Your task to perform on an android device: turn on the 12-hour format for clock Image 0: 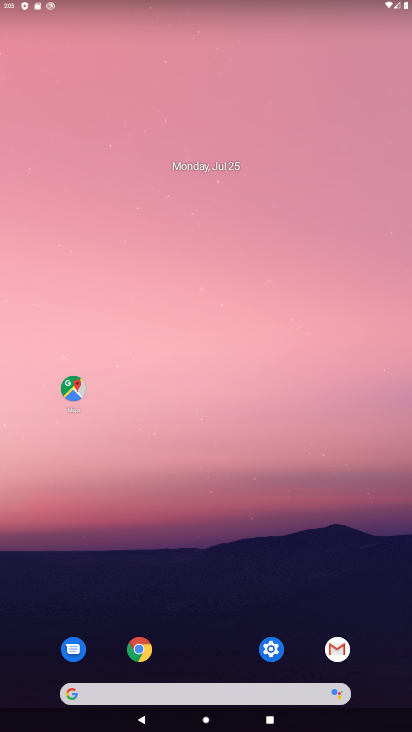
Step 0: drag from (264, 689) to (408, 135)
Your task to perform on an android device: turn on the 12-hour format for clock Image 1: 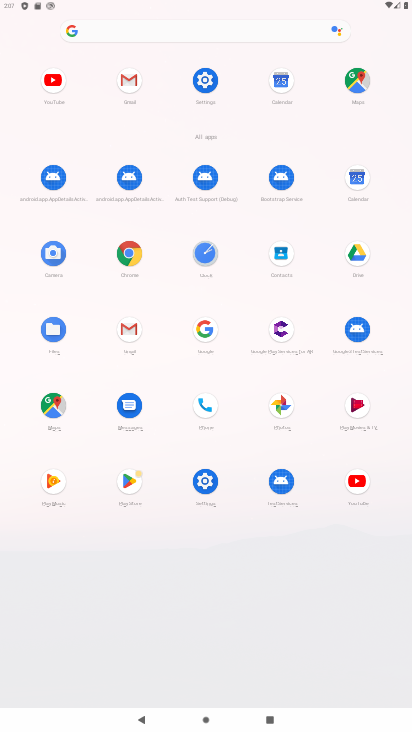
Step 1: click (195, 255)
Your task to perform on an android device: turn on the 12-hour format for clock Image 2: 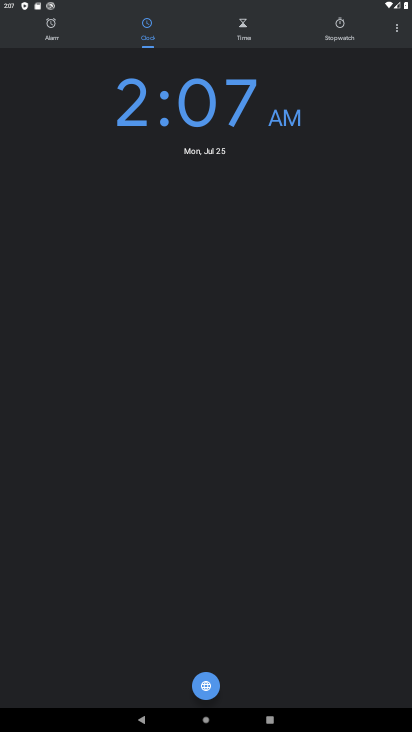
Step 2: click (390, 37)
Your task to perform on an android device: turn on the 12-hour format for clock Image 3: 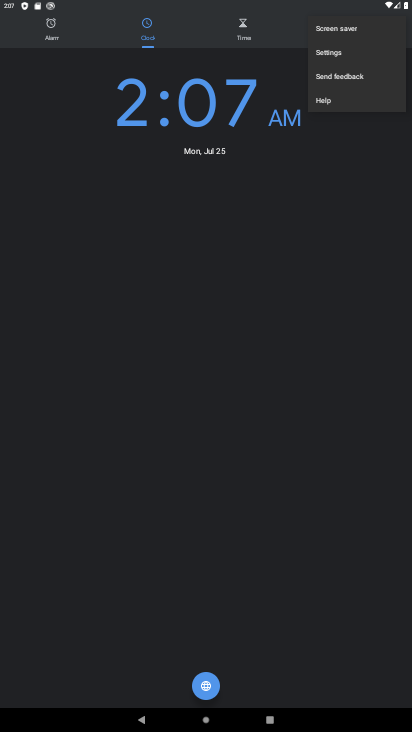
Step 3: click (328, 53)
Your task to perform on an android device: turn on the 12-hour format for clock Image 4: 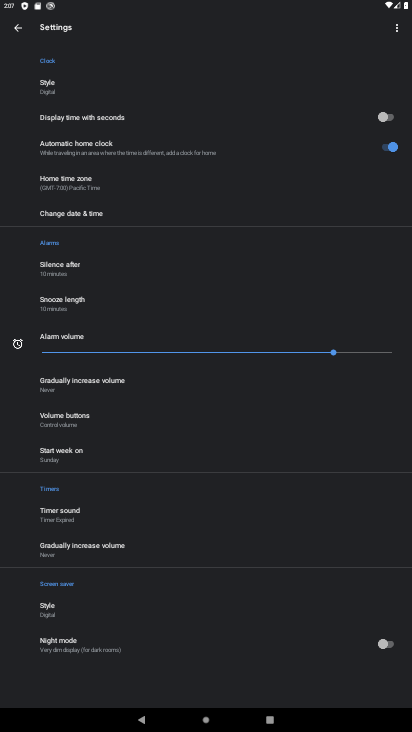
Step 4: click (70, 212)
Your task to perform on an android device: turn on the 12-hour format for clock Image 5: 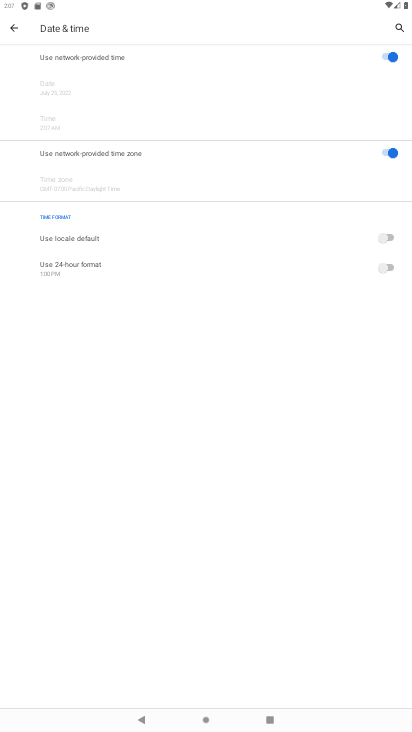
Step 5: click (191, 235)
Your task to perform on an android device: turn on the 12-hour format for clock Image 6: 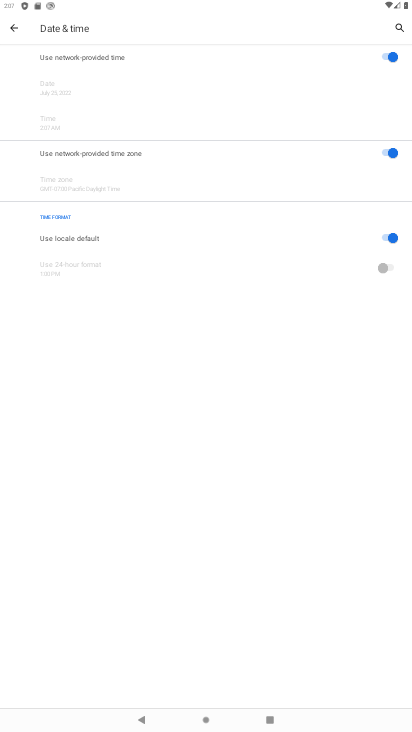
Step 6: task complete